Your task to perform on an android device: check data usage Image 0: 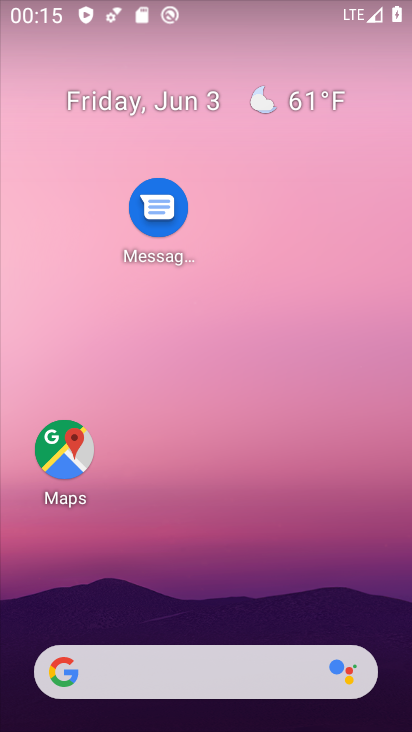
Step 0: drag from (222, 652) to (238, 43)
Your task to perform on an android device: check data usage Image 1: 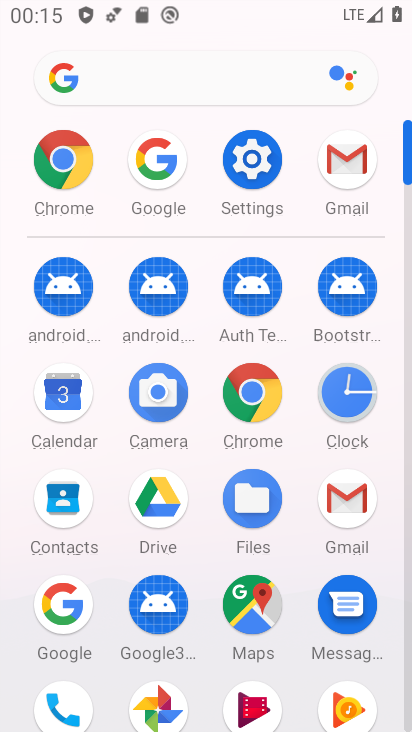
Step 1: click (248, 194)
Your task to perform on an android device: check data usage Image 2: 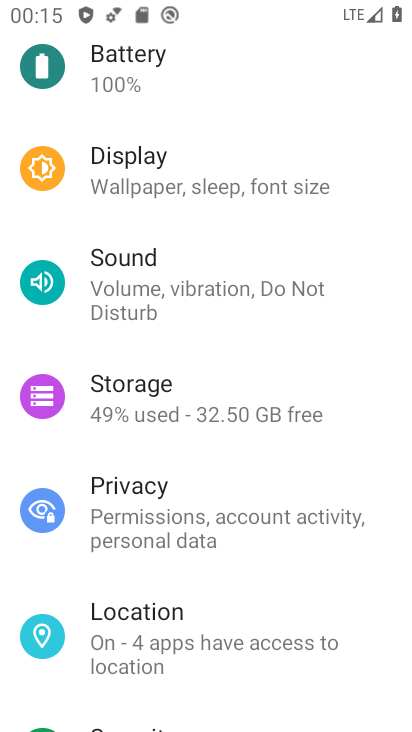
Step 2: drag from (183, 179) to (229, 616)
Your task to perform on an android device: check data usage Image 3: 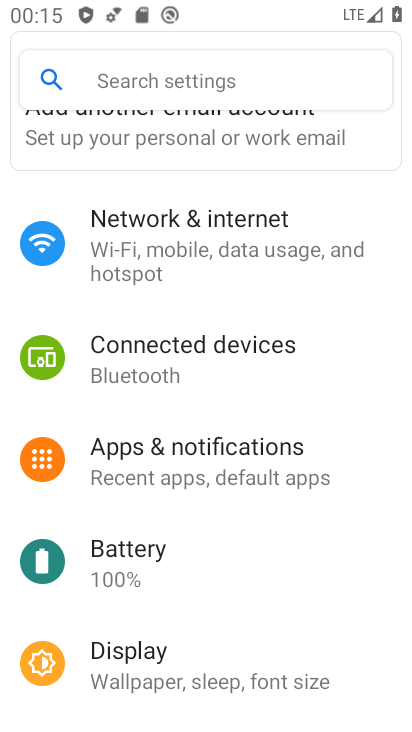
Step 3: click (230, 267)
Your task to perform on an android device: check data usage Image 4: 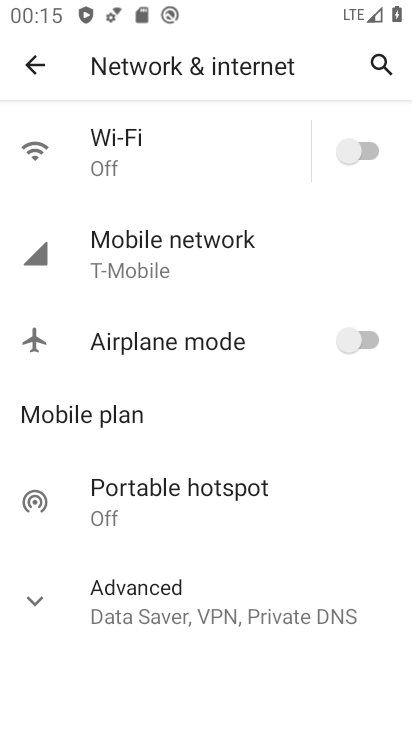
Step 4: click (237, 259)
Your task to perform on an android device: check data usage Image 5: 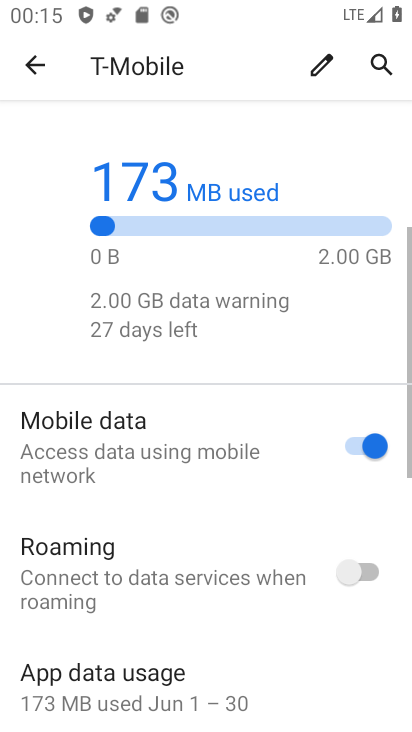
Step 5: task complete